Your task to perform on an android device: Open wifi settings Image 0: 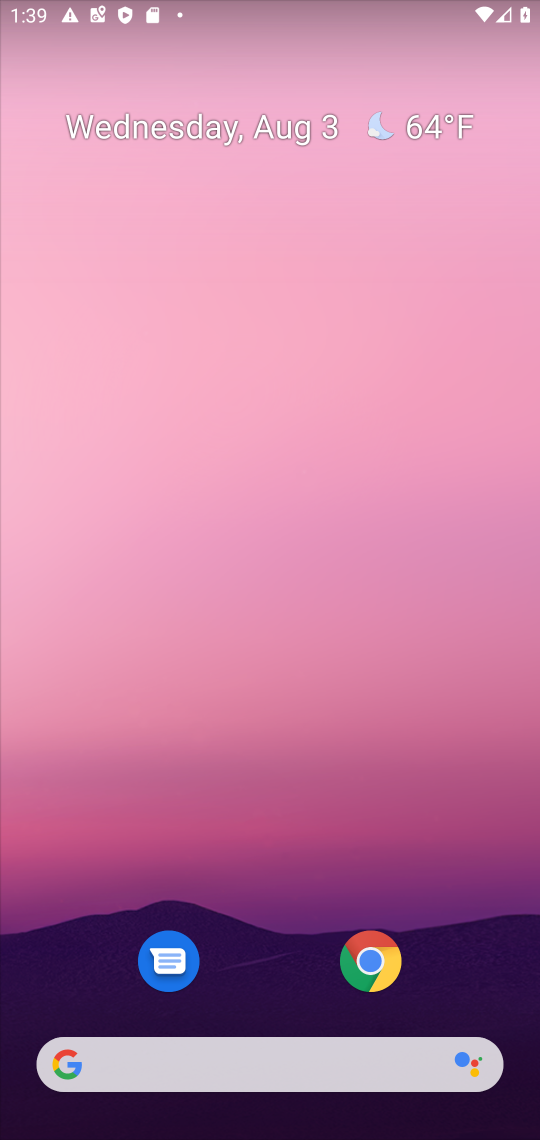
Step 0: drag from (283, 973) to (325, 39)
Your task to perform on an android device: Open wifi settings Image 1: 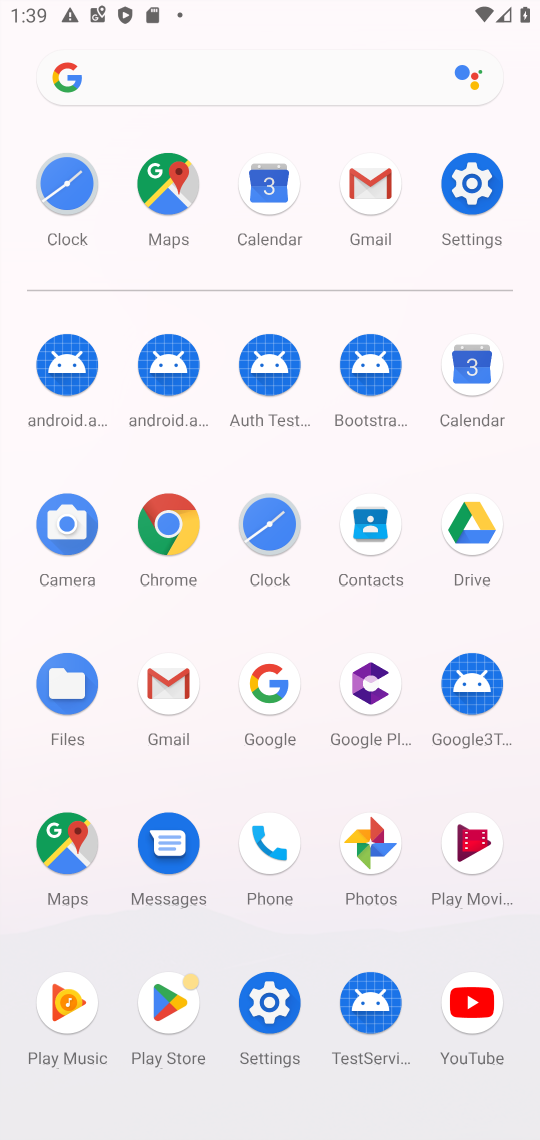
Step 1: click (473, 193)
Your task to perform on an android device: Open wifi settings Image 2: 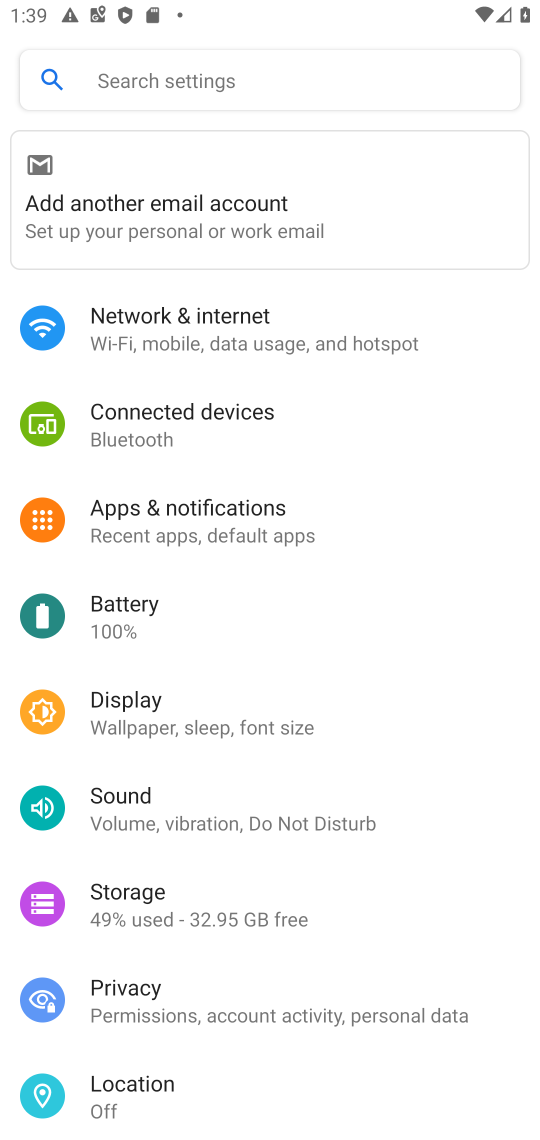
Step 2: click (134, 323)
Your task to perform on an android device: Open wifi settings Image 3: 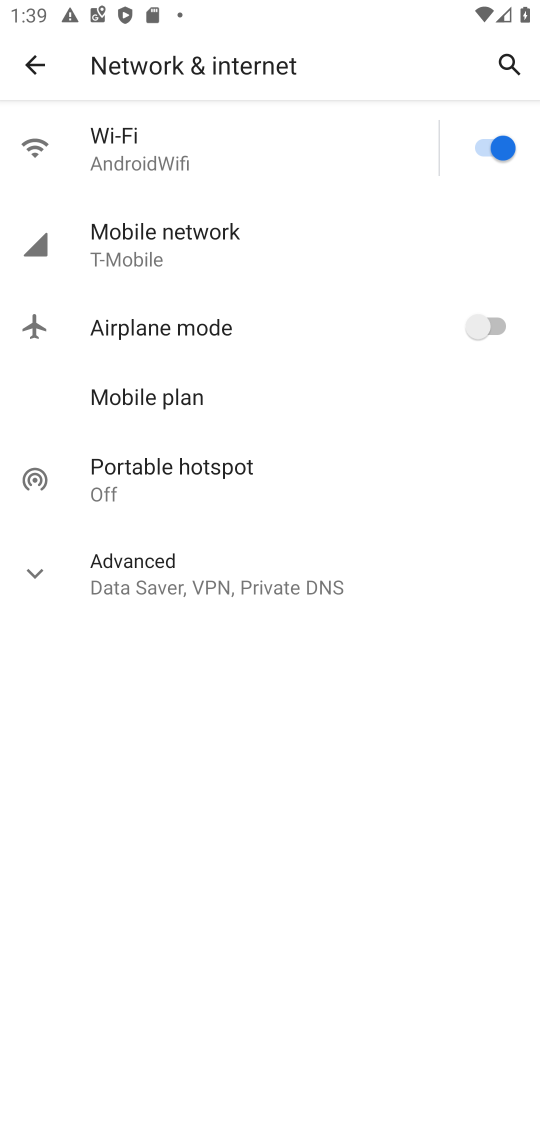
Step 3: click (73, 149)
Your task to perform on an android device: Open wifi settings Image 4: 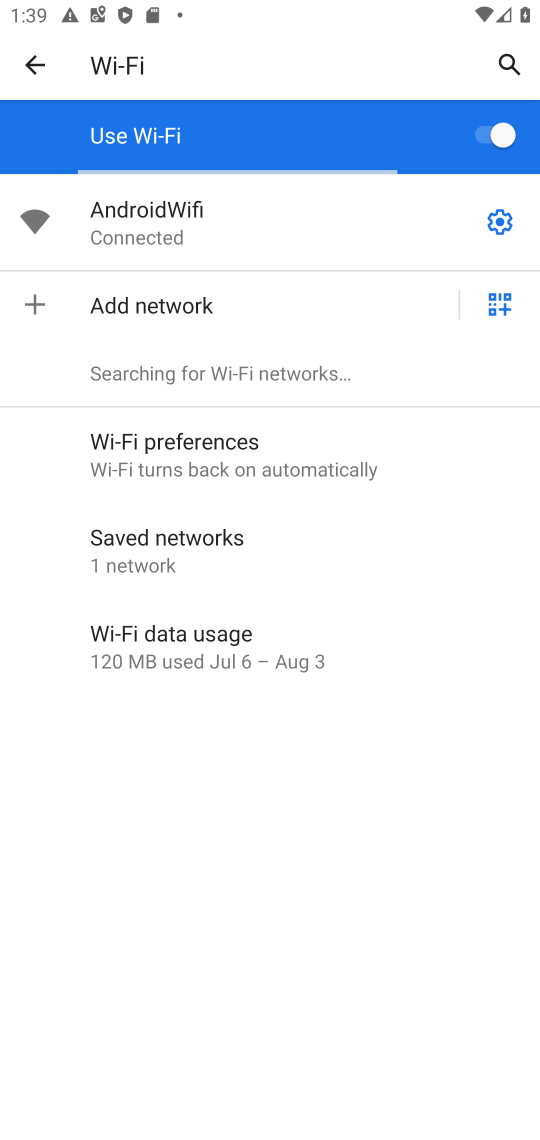
Step 4: task complete